Your task to perform on an android device: toggle show notifications on the lock screen Image 0: 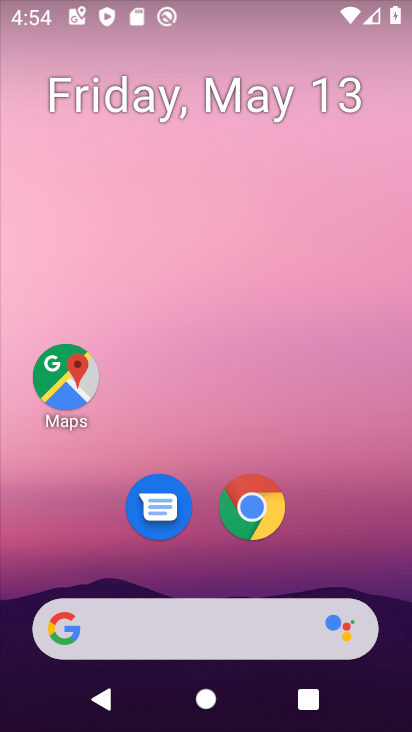
Step 0: drag from (355, 539) to (301, 102)
Your task to perform on an android device: toggle show notifications on the lock screen Image 1: 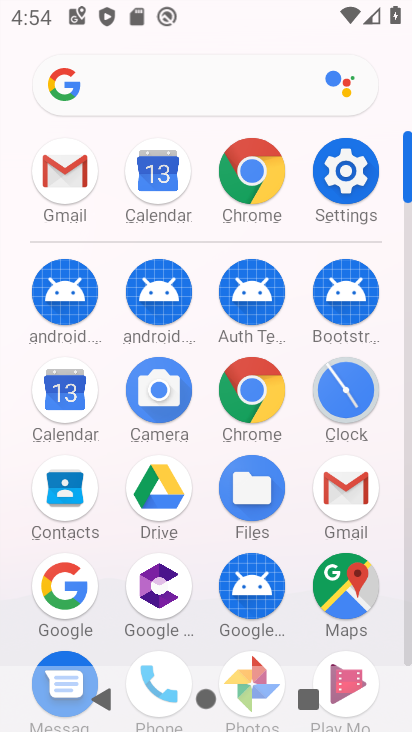
Step 1: click (337, 185)
Your task to perform on an android device: toggle show notifications on the lock screen Image 2: 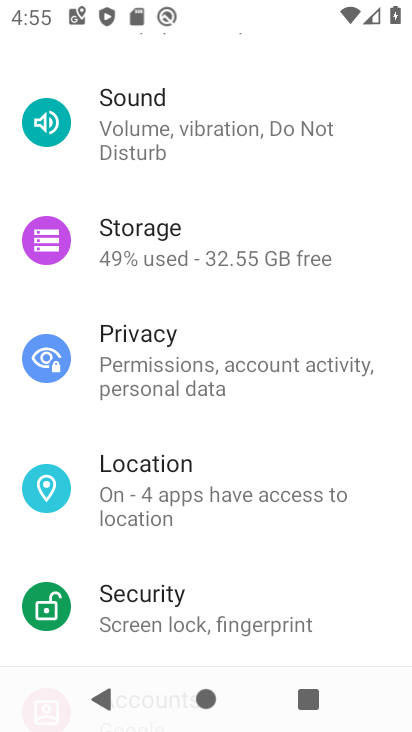
Step 2: drag from (219, 167) to (149, 602)
Your task to perform on an android device: toggle show notifications on the lock screen Image 3: 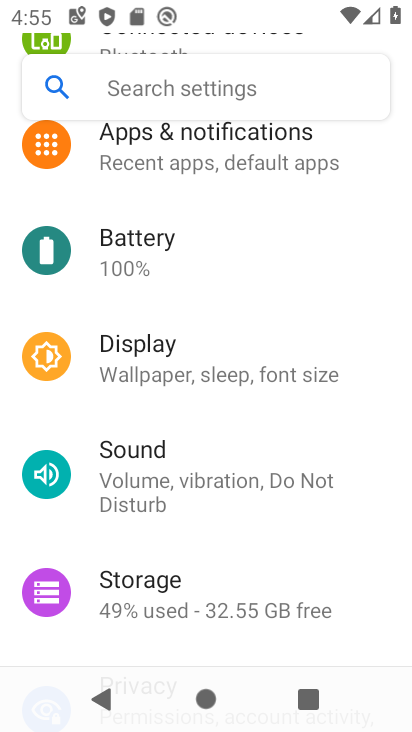
Step 3: click (199, 164)
Your task to perform on an android device: toggle show notifications on the lock screen Image 4: 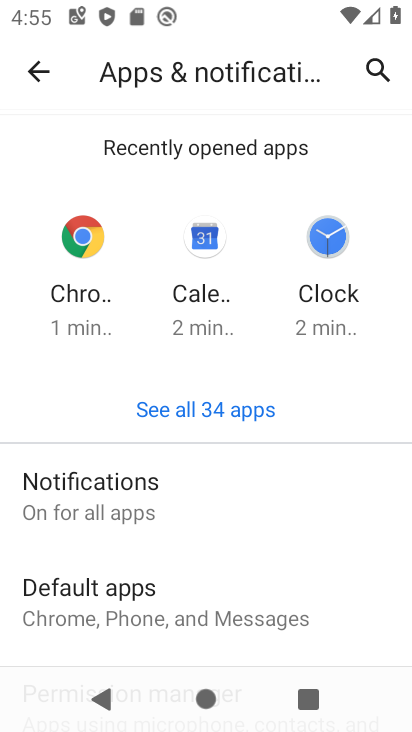
Step 4: click (136, 492)
Your task to perform on an android device: toggle show notifications on the lock screen Image 5: 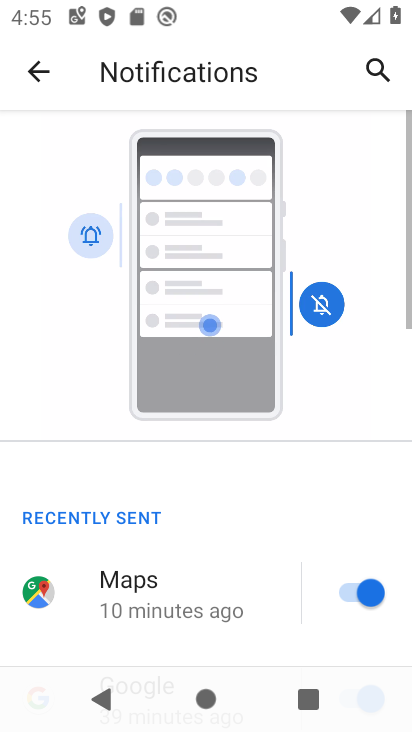
Step 5: drag from (221, 565) to (224, 228)
Your task to perform on an android device: toggle show notifications on the lock screen Image 6: 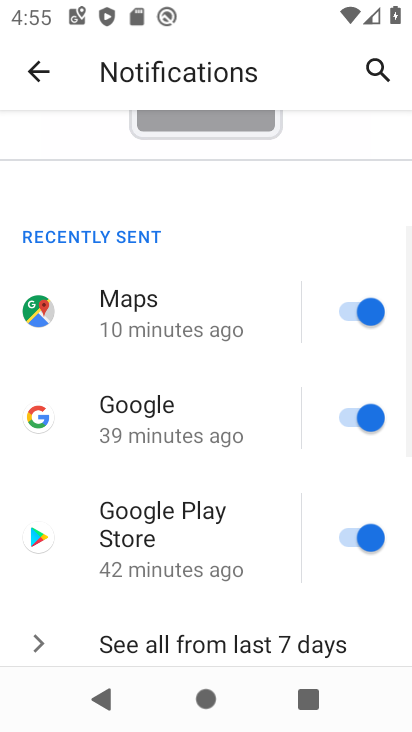
Step 6: drag from (198, 525) to (209, 214)
Your task to perform on an android device: toggle show notifications on the lock screen Image 7: 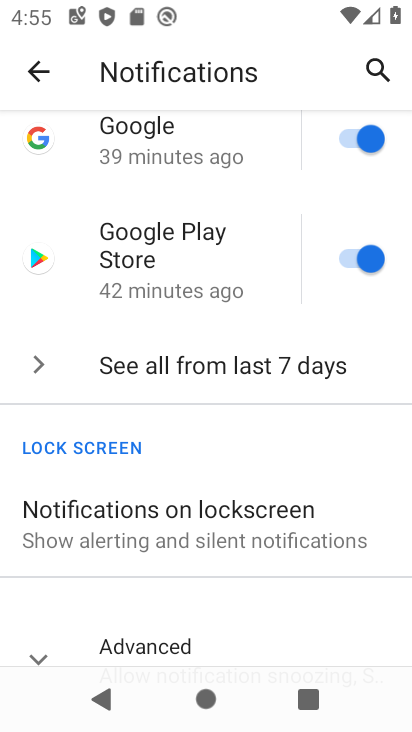
Step 7: click (205, 505)
Your task to perform on an android device: toggle show notifications on the lock screen Image 8: 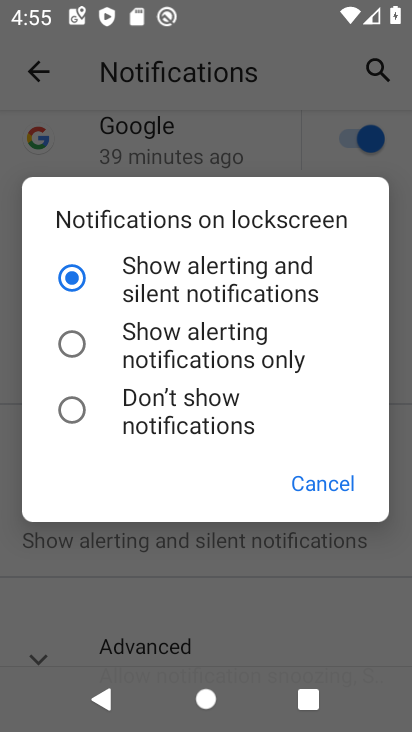
Step 8: click (168, 420)
Your task to perform on an android device: toggle show notifications on the lock screen Image 9: 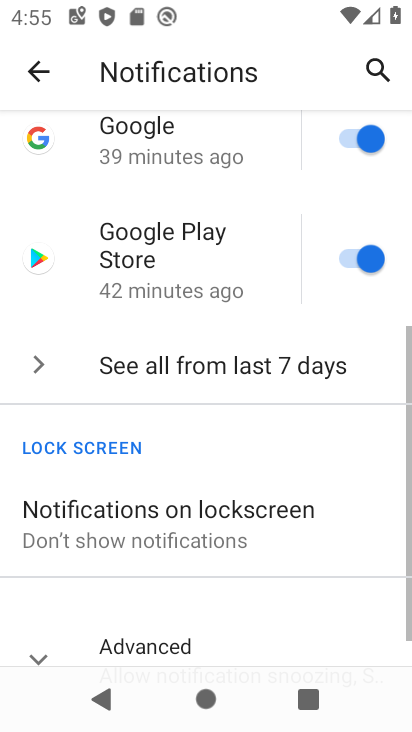
Step 9: task complete